Your task to perform on an android device: What's the weather going to be this weekend? Image 0: 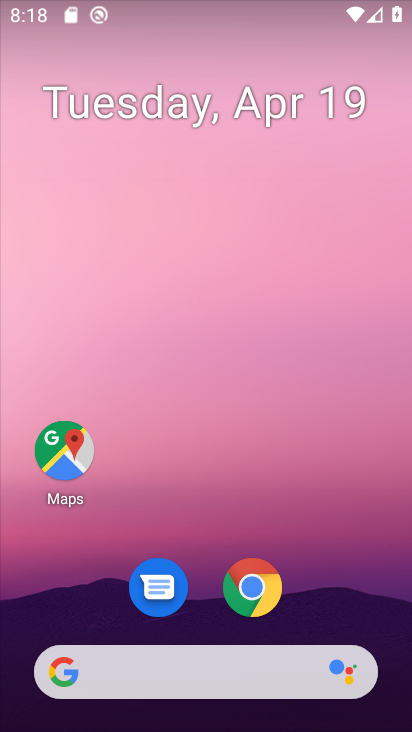
Step 0: drag from (13, 506) to (265, 464)
Your task to perform on an android device: What's the weather going to be this weekend? Image 1: 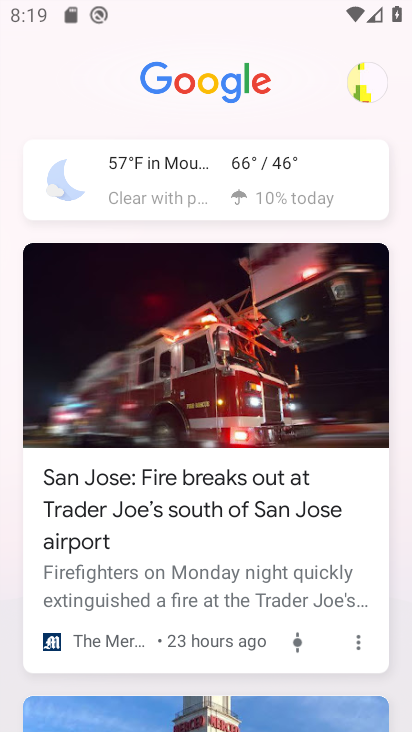
Step 1: click (210, 197)
Your task to perform on an android device: What's the weather going to be this weekend? Image 2: 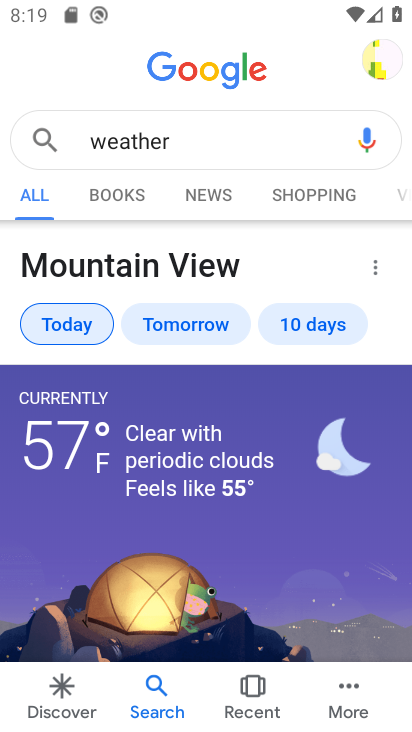
Step 2: click (291, 336)
Your task to perform on an android device: What's the weather going to be this weekend? Image 3: 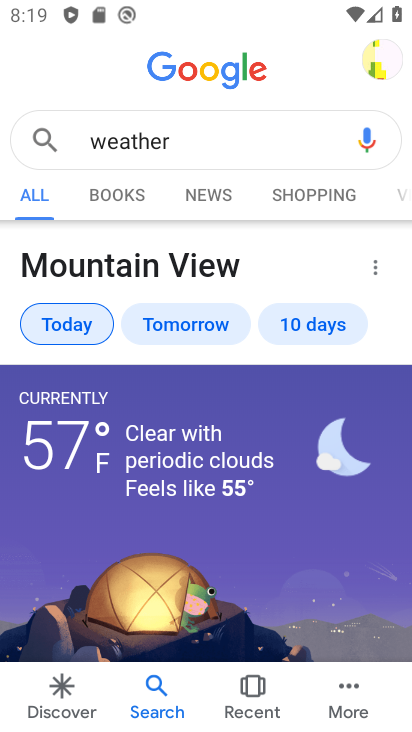
Step 3: click (316, 320)
Your task to perform on an android device: What's the weather going to be this weekend? Image 4: 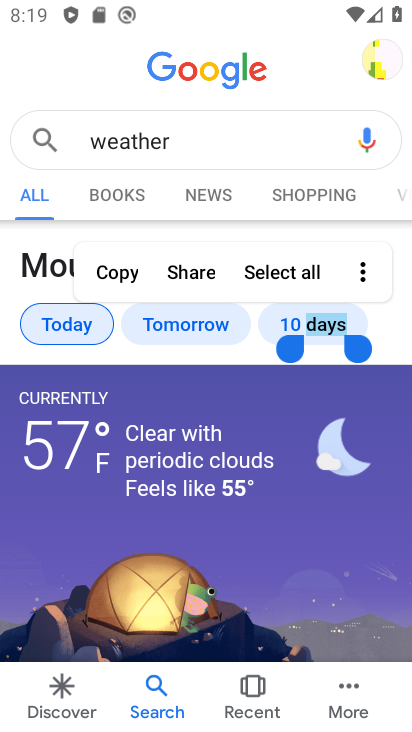
Step 4: click (340, 311)
Your task to perform on an android device: What's the weather going to be this weekend? Image 5: 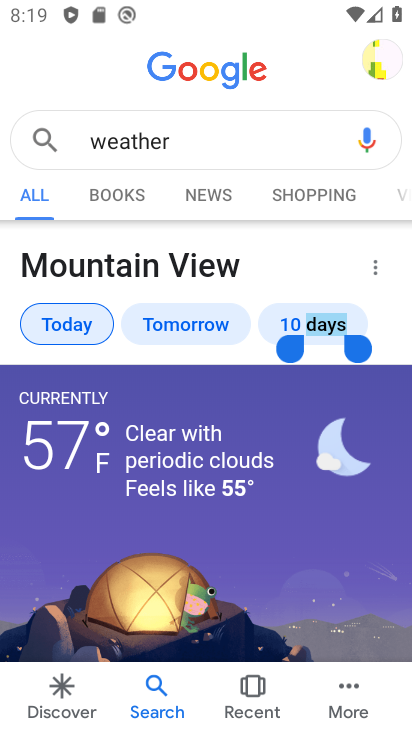
Step 5: click (328, 324)
Your task to perform on an android device: What's the weather going to be this weekend? Image 6: 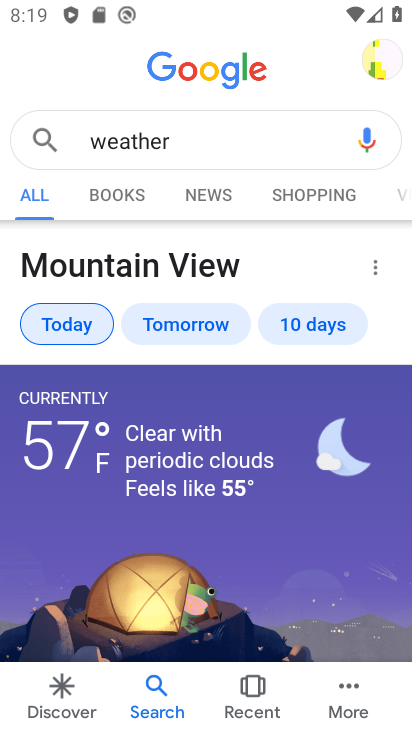
Step 6: click (344, 333)
Your task to perform on an android device: What's the weather going to be this weekend? Image 7: 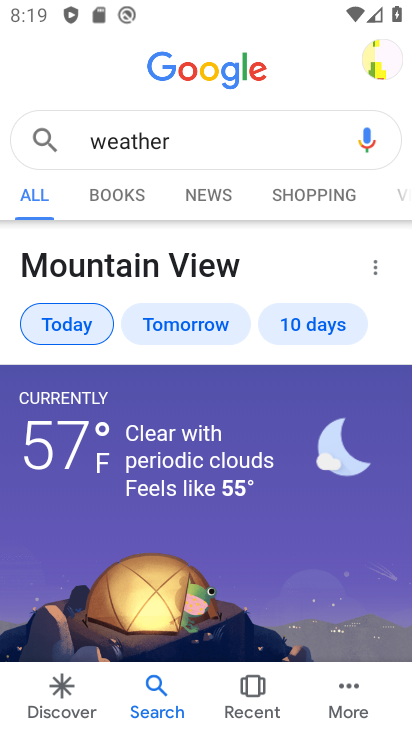
Step 7: click (330, 328)
Your task to perform on an android device: What's the weather going to be this weekend? Image 8: 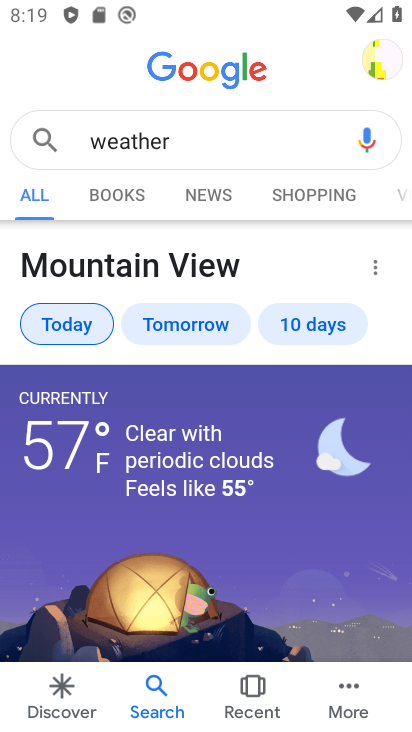
Step 8: click (330, 328)
Your task to perform on an android device: What's the weather going to be this weekend? Image 9: 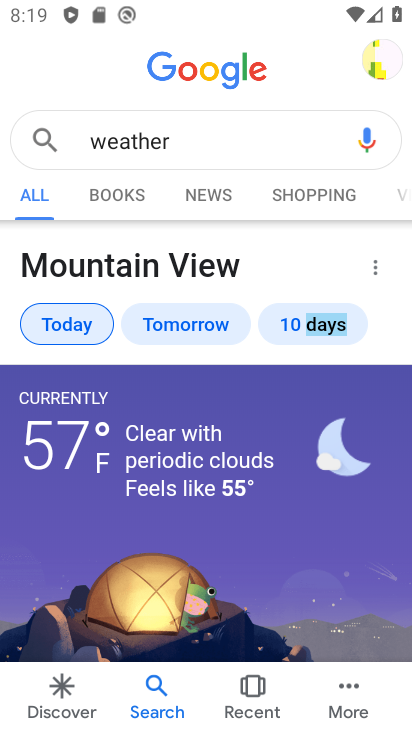
Step 9: click (264, 454)
Your task to perform on an android device: What's the weather going to be this weekend? Image 10: 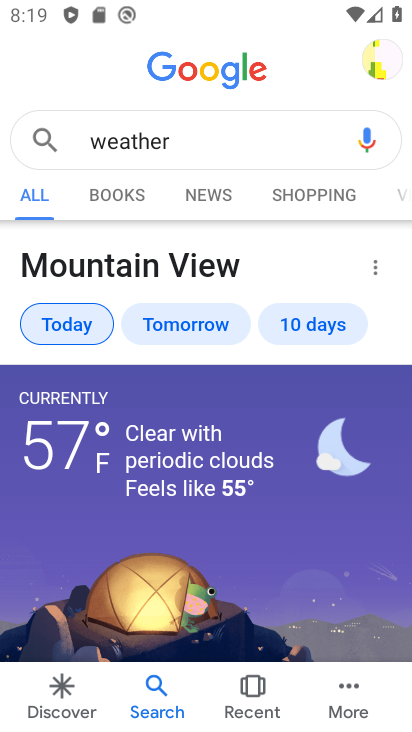
Step 10: click (265, 442)
Your task to perform on an android device: What's the weather going to be this weekend? Image 11: 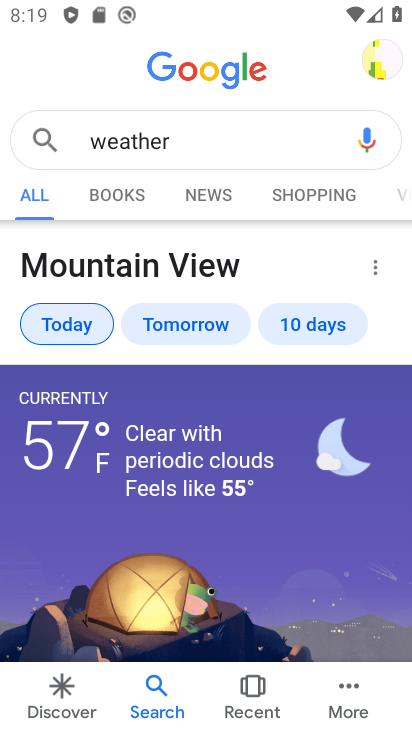
Step 11: click (320, 334)
Your task to perform on an android device: What's the weather going to be this weekend? Image 12: 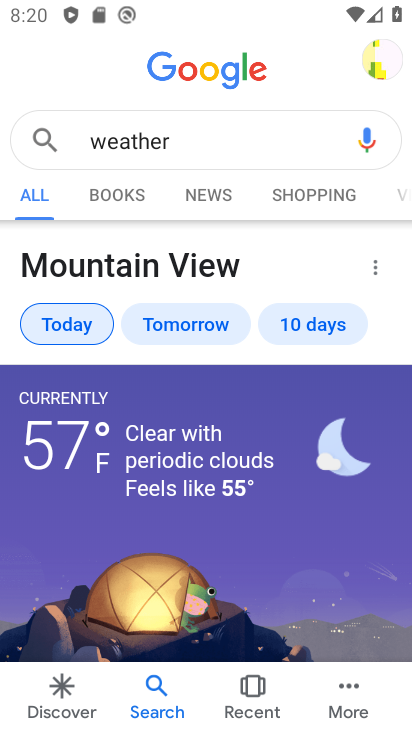
Step 12: click (318, 342)
Your task to perform on an android device: What's the weather going to be this weekend? Image 13: 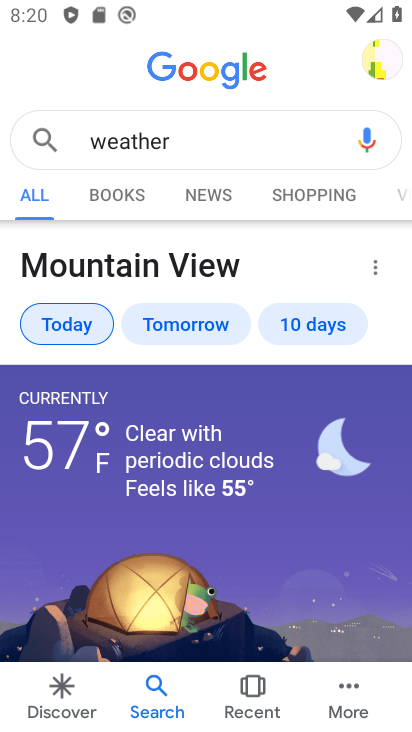
Step 13: click (318, 341)
Your task to perform on an android device: What's the weather going to be this weekend? Image 14: 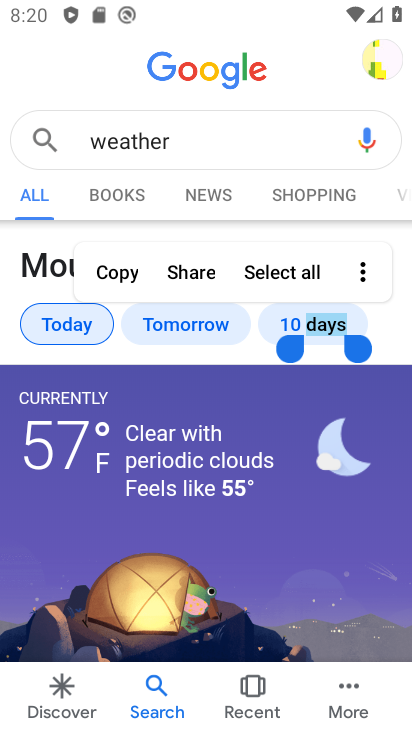
Step 14: click (288, 319)
Your task to perform on an android device: What's the weather going to be this weekend? Image 15: 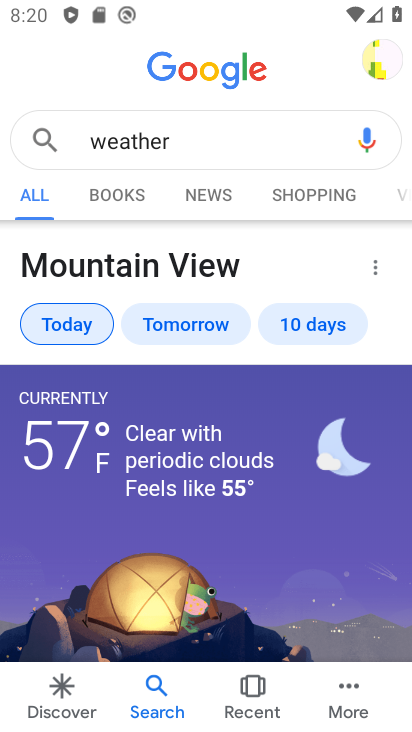
Step 15: click (298, 526)
Your task to perform on an android device: What's the weather going to be this weekend? Image 16: 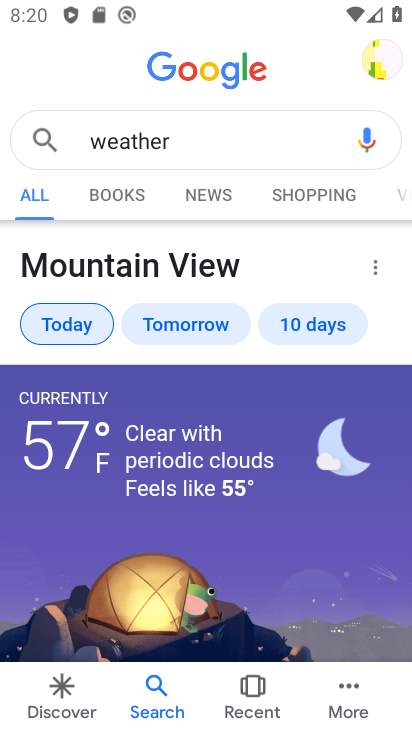
Step 16: click (298, 522)
Your task to perform on an android device: What's the weather going to be this weekend? Image 17: 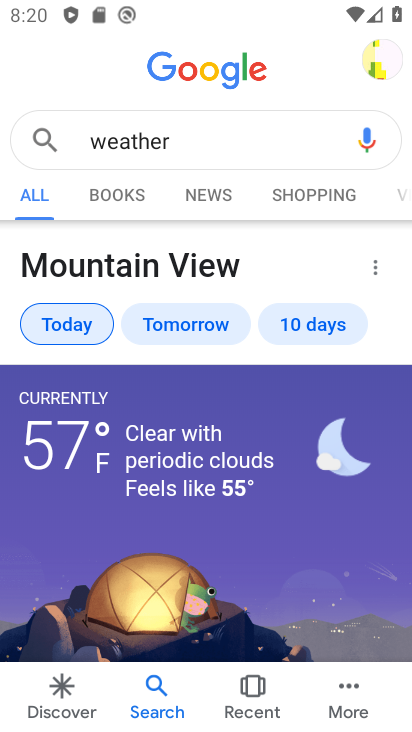
Step 17: click (252, 534)
Your task to perform on an android device: What's the weather going to be this weekend? Image 18: 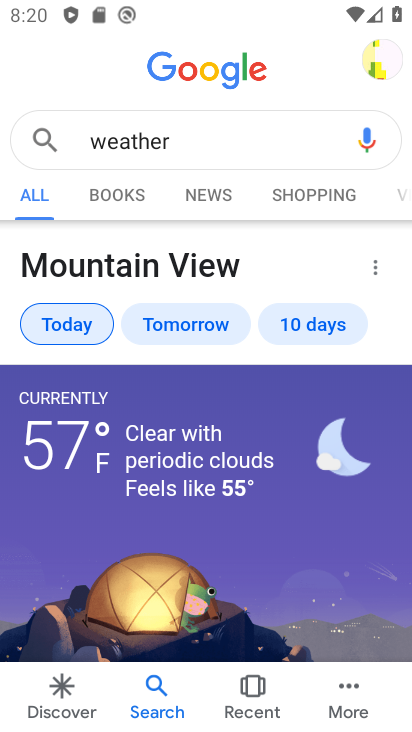
Step 18: drag from (408, 551) to (409, 374)
Your task to perform on an android device: What's the weather going to be this weekend? Image 19: 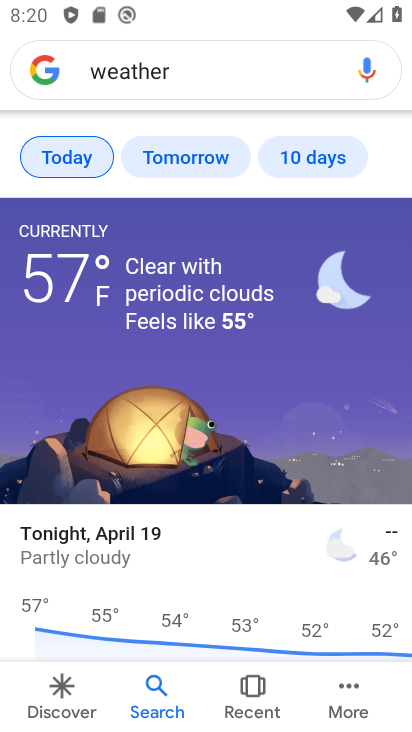
Step 19: click (297, 446)
Your task to perform on an android device: What's the weather going to be this weekend? Image 20: 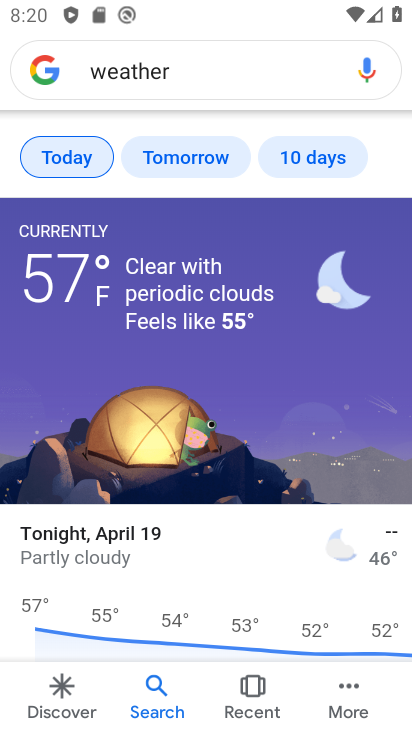
Step 20: click (257, 409)
Your task to perform on an android device: What's the weather going to be this weekend? Image 21: 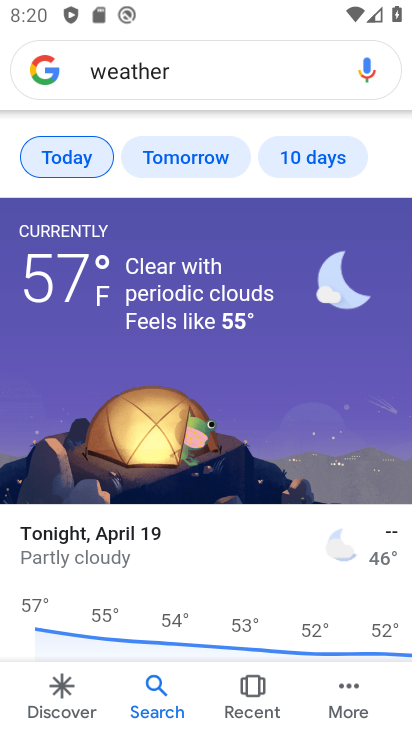
Step 21: click (286, 158)
Your task to perform on an android device: What's the weather going to be this weekend? Image 22: 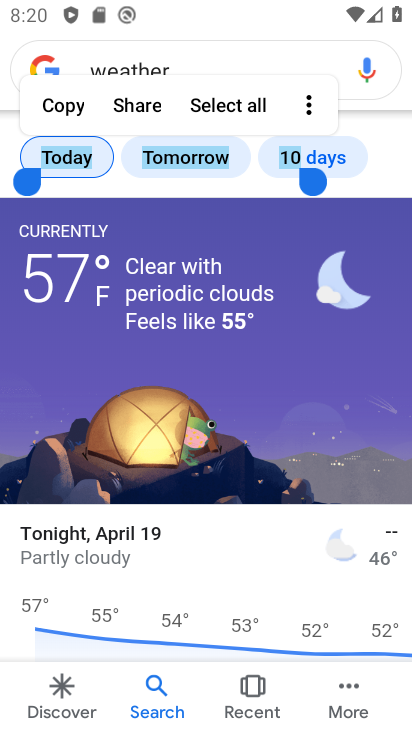
Step 22: click (332, 160)
Your task to perform on an android device: What's the weather going to be this weekend? Image 23: 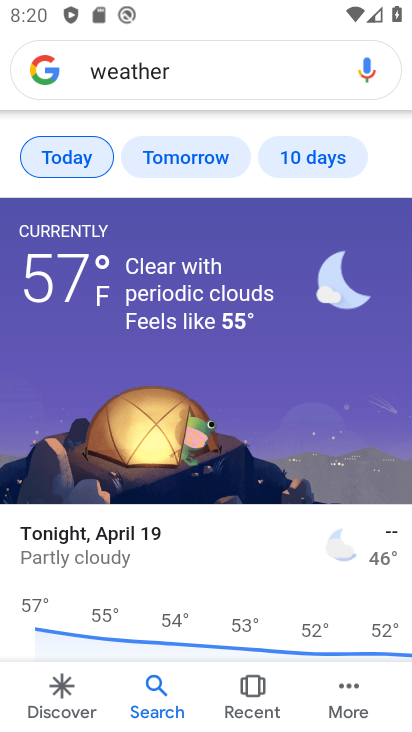
Step 23: click (300, 175)
Your task to perform on an android device: What's the weather going to be this weekend? Image 24: 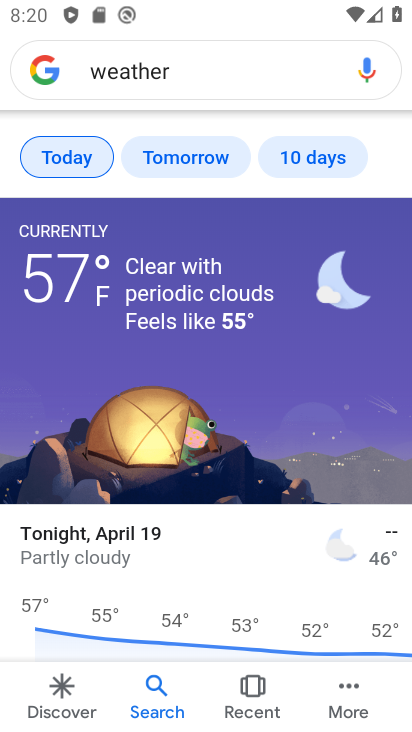
Step 24: click (294, 162)
Your task to perform on an android device: What's the weather going to be this weekend? Image 25: 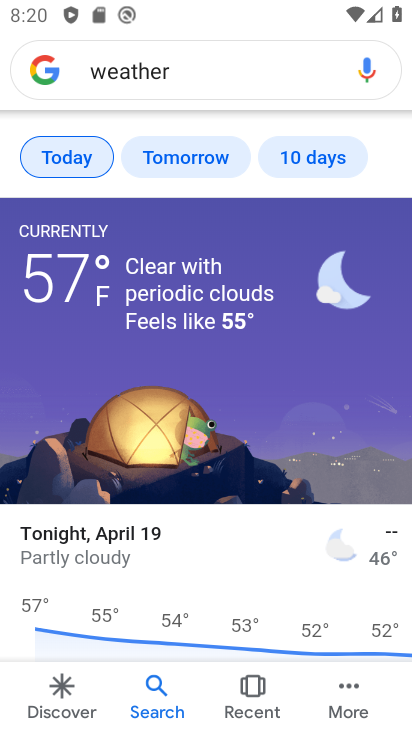
Step 25: click (294, 162)
Your task to perform on an android device: What's the weather going to be this weekend? Image 26: 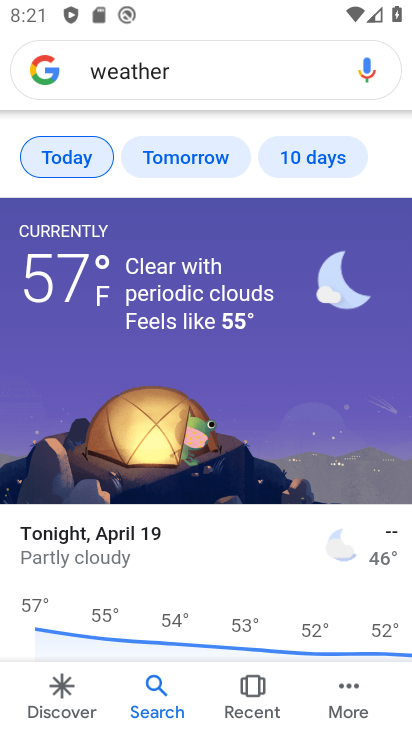
Step 26: click (181, 372)
Your task to perform on an android device: What's the weather going to be this weekend? Image 27: 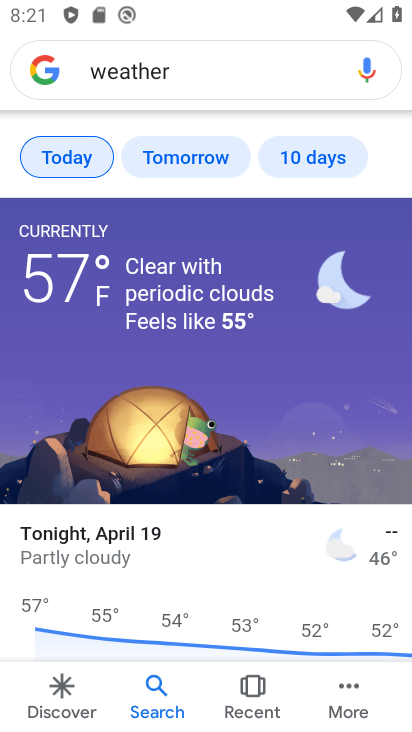
Step 27: click (287, 156)
Your task to perform on an android device: What's the weather going to be this weekend? Image 28: 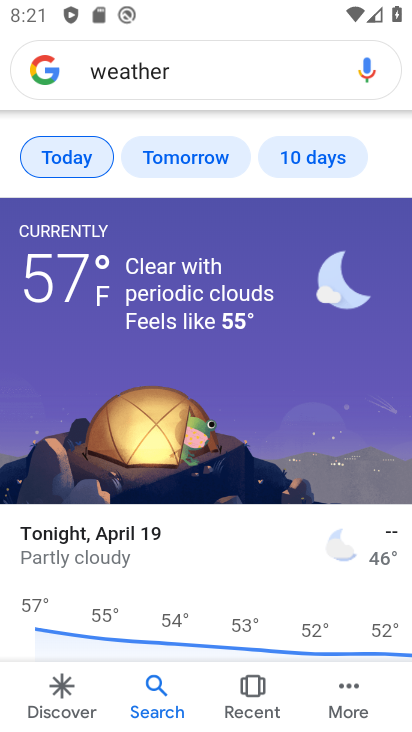
Step 28: task complete